Your task to perform on an android device: Search for "razer thresher" on ebay.com, select the first entry, and add it to the cart. Image 0: 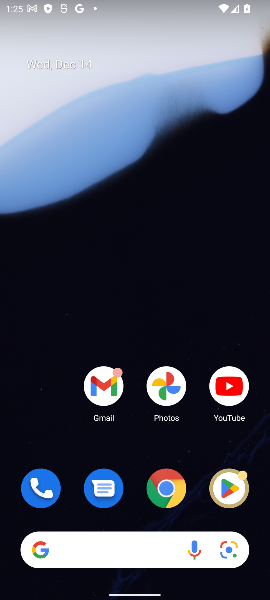
Step 0: drag from (110, 545) to (144, 179)
Your task to perform on an android device: Search for "razer thresher" on ebay.com, select the first entry, and add it to the cart. Image 1: 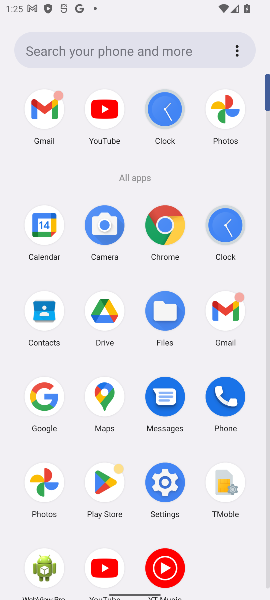
Step 1: click (35, 395)
Your task to perform on an android device: Search for "razer thresher" on ebay.com, select the first entry, and add it to the cart. Image 2: 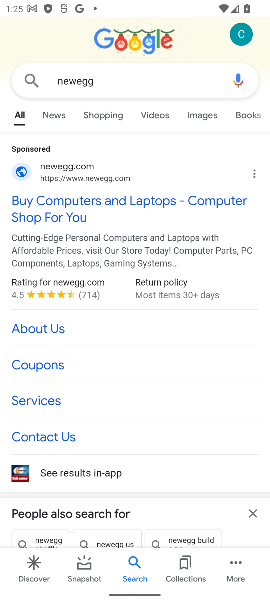
Step 2: click (77, 83)
Your task to perform on an android device: Search for "razer thresher" on ebay.com, select the first entry, and add it to the cart. Image 3: 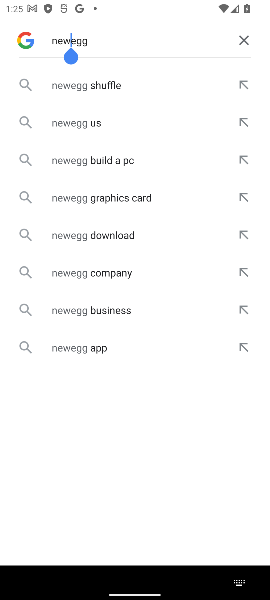
Step 3: click (239, 43)
Your task to perform on an android device: Search for "razer thresher" on ebay.com, select the first entry, and add it to the cart. Image 4: 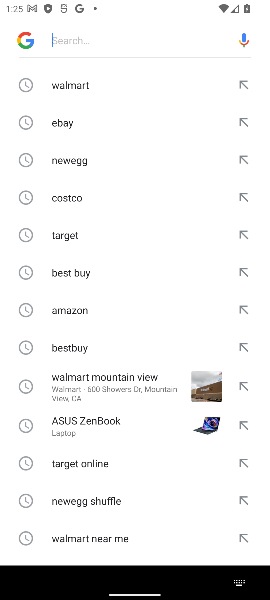
Step 4: click (62, 118)
Your task to perform on an android device: Search for "razer thresher" on ebay.com, select the first entry, and add it to the cart. Image 5: 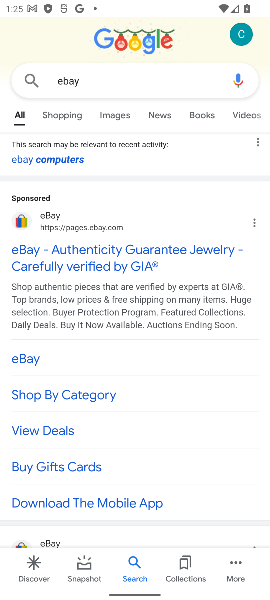
Step 5: click (81, 260)
Your task to perform on an android device: Search for "razer thresher" on ebay.com, select the first entry, and add it to the cart. Image 6: 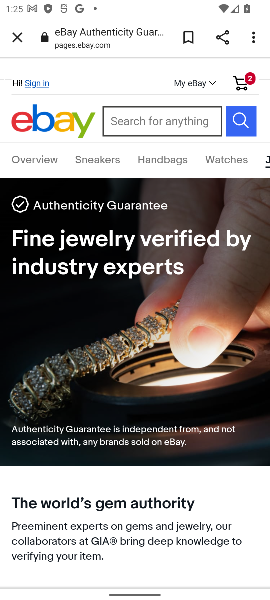
Step 6: click (125, 123)
Your task to perform on an android device: Search for "razer thresher" on ebay.com, select the first entry, and add it to the cart. Image 7: 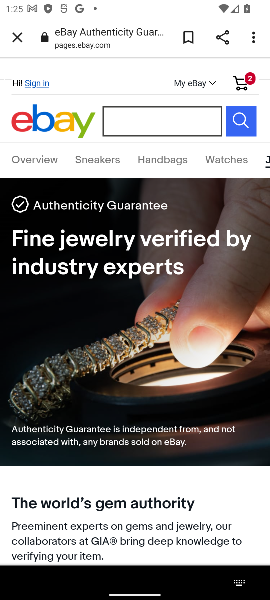
Step 7: click (239, 127)
Your task to perform on an android device: Search for "razer thresher" on ebay.com, select the first entry, and add it to the cart. Image 8: 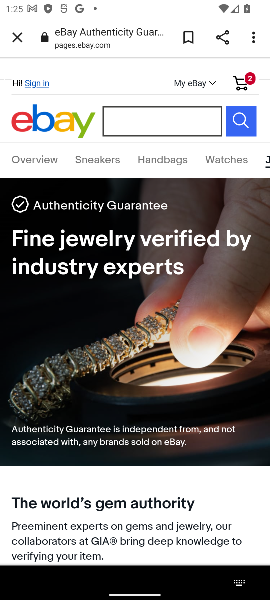
Step 8: type "razer thresher"
Your task to perform on an android device: Search for "razer thresher" on ebay.com, select the first entry, and add it to the cart. Image 9: 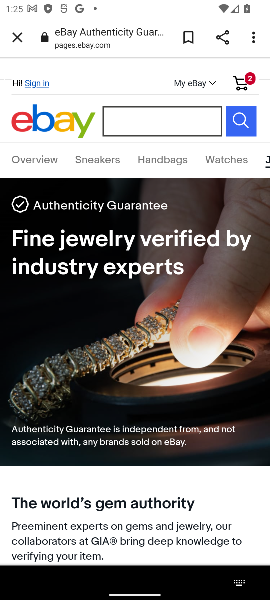
Step 9: click (239, 127)
Your task to perform on an android device: Search for "razer thresher" on ebay.com, select the first entry, and add it to the cart. Image 10: 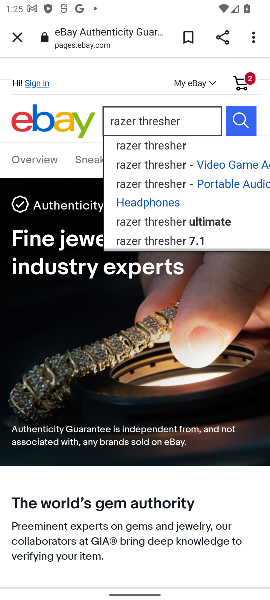
Step 10: click (172, 146)
Your task to perform on an android device: Search for "razer thresher" on ebay.com, select the first entry, and add it to the cart. Image 11: 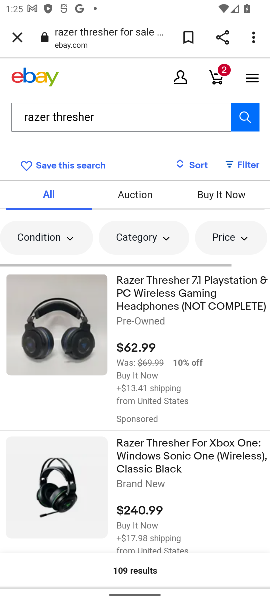
Step 11: click (168, 292)
Your task to perform on an android device: Search for "razer thresher" on ebay.com, select the first entry, and add it to the cart. Image 12: 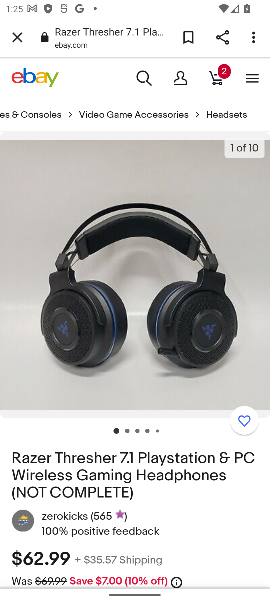
Step 12: drag from (180, 554) to (190, 257)
Your task to perform on an android device: Search for "razer thresher" on ebay.com, select the first entry, and add it to the cart. Image 13: 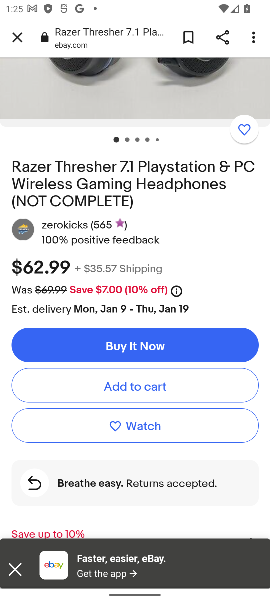
Step 13: click (132, 382)
Your task to perform on an android device: Search for "razer thresher" on ebay.com, select the first entry, and add it to the cart. Image 14: 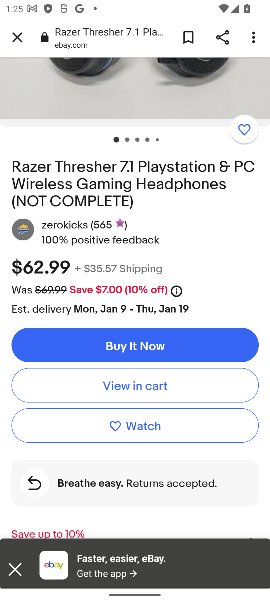
Step 14: click (132, 382)
Your task to perform on an android device: Search for "razer thresher" on ebay.com, select the first entry, and add it to the cart. Image 15: 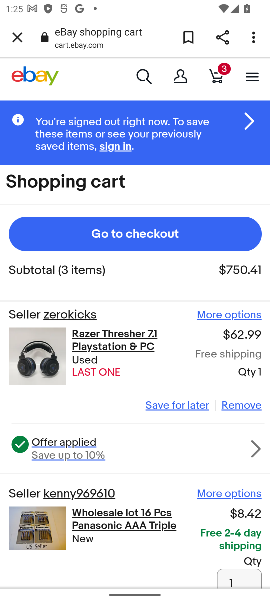
Step 15: task complete